Your task to perform on an android device: turn notification dots on Image 0: 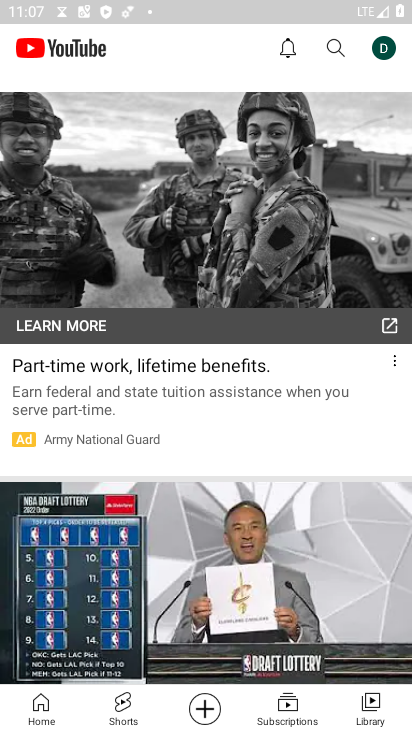
Step 0: press back button
Your task to perform on an android device: turn notification dots on Image 1: 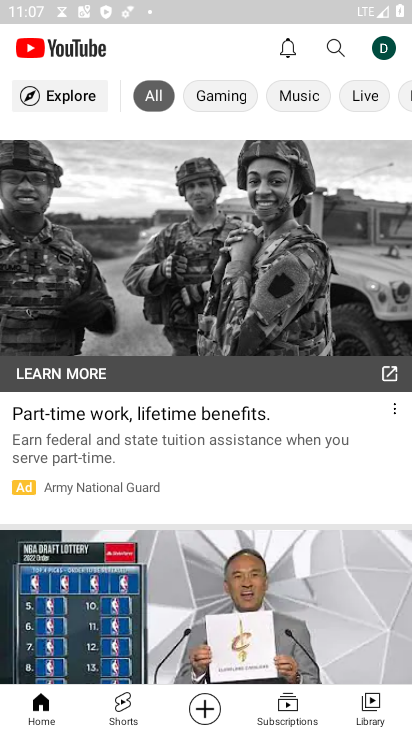
Step 1: press back button
Your task to perform on an android device: turn notification dots on Image 2: 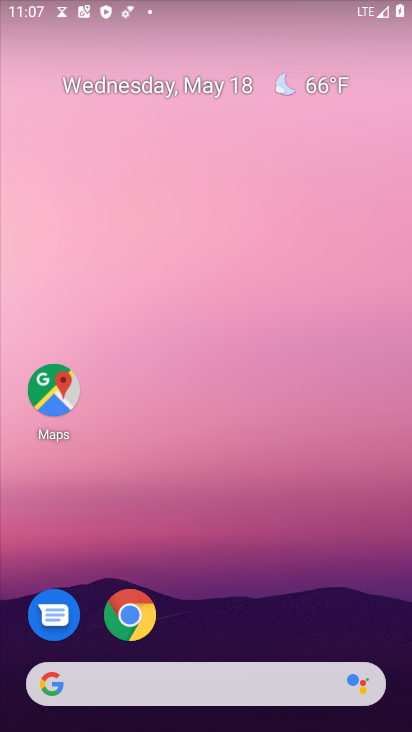
Step 2: drag from (229, 572) to (229, 85)
Your task to perform on an android device: turn notification dots on Image 3: 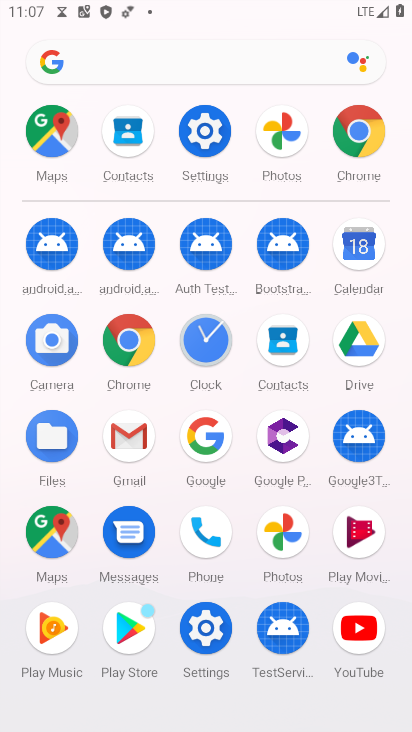
Step 3: click (207, 127)
Your task to perform on an android device: turn notification dots on Image 4: 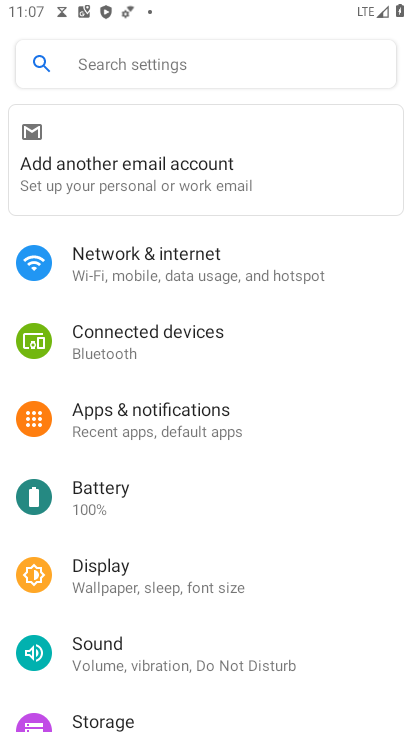
Step 4: click (142, 428)
Your task to perform on an android device: turn notification dots on Image 5: 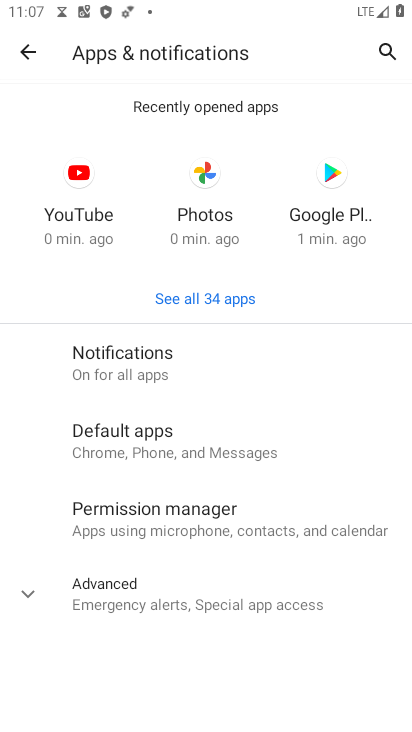
Step 5: click (183, 347)
Your task to perform on an android device: turn notification dots on Image 6: 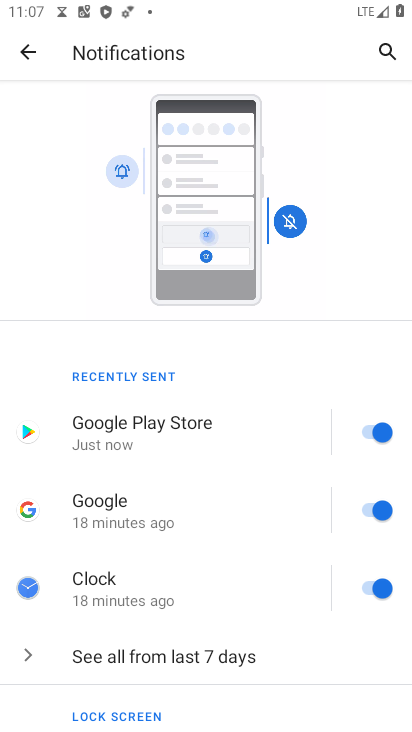
Step 6: drag from (201, 552) to (236, 96)
Your task to perform on an android device: turn notification dots on Image 7: 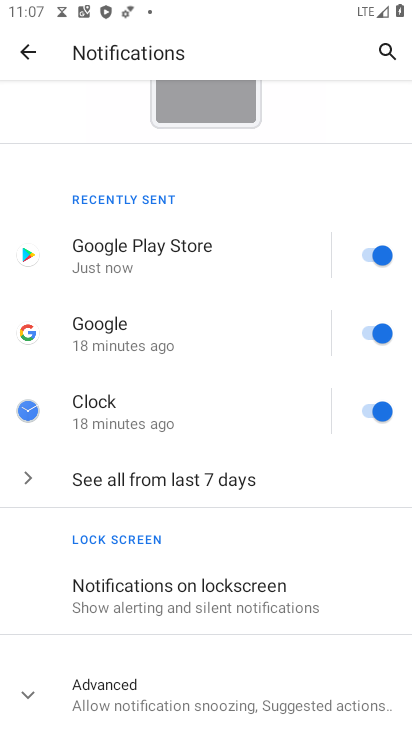
Step 7: drag from (205, 584) to (228, 159)
Your task to perform on an android device: turn notification dots on Image 8: 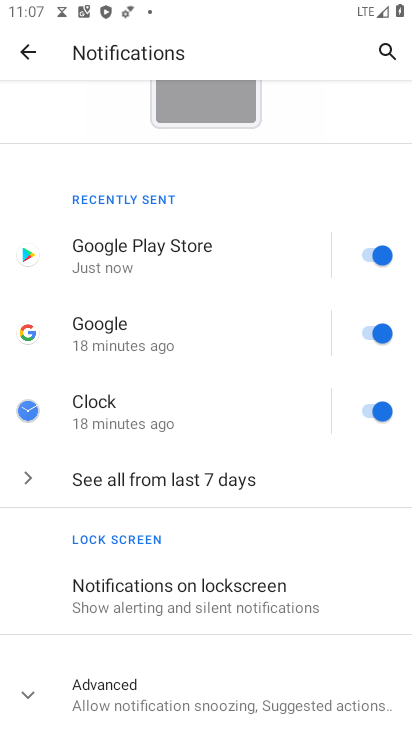
Step 8: click (22, 694)
Your task to perform on an android device: turn notification dots on Image 9: 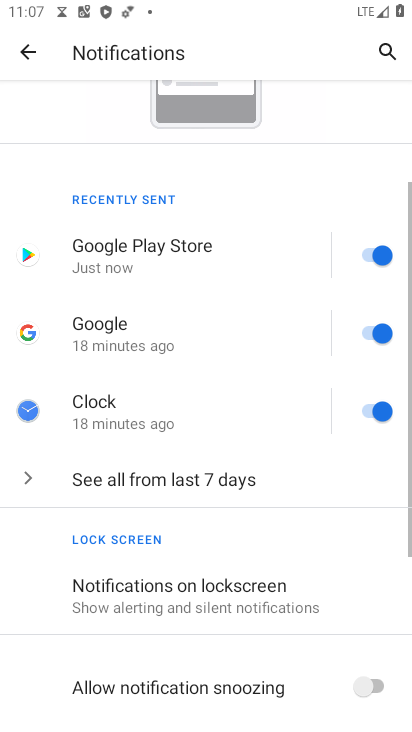
Step 9: task complete